Your task to perform on an android device: How do I get to the nearest Sprint Store? Image 0: 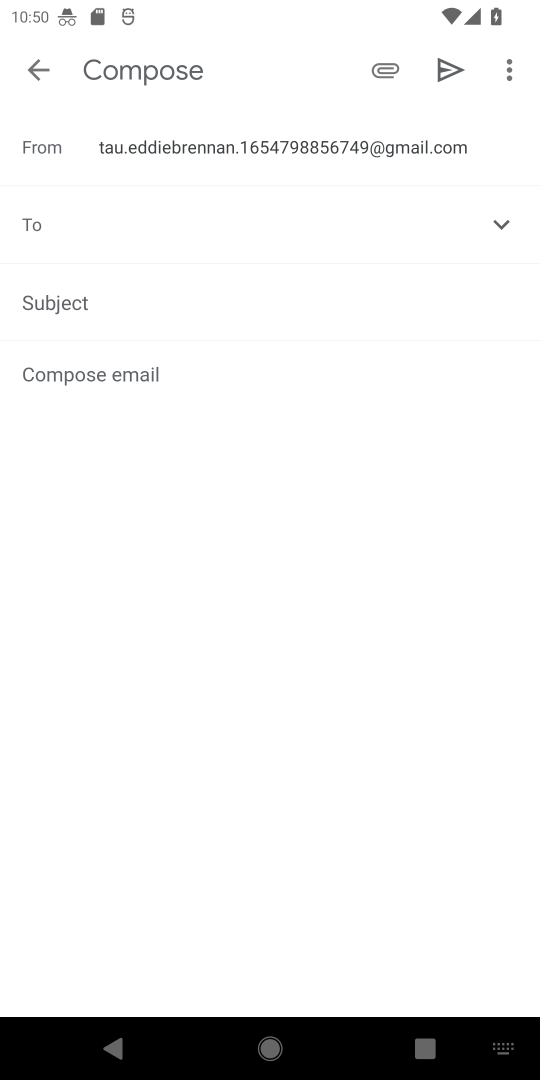
Step 0: press home button
Your task to perform on an android device: How do I get to the nearest Sprint Store? Image 1: 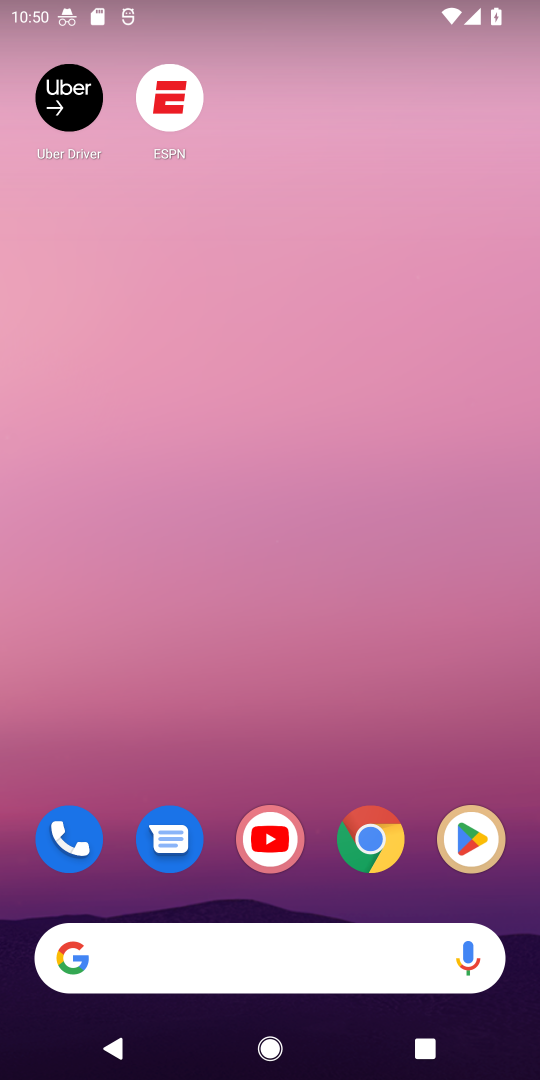
Step 1: drag from (311, 898) to (367, 66)
Your task to perform on an android device: How do I get to the nearest Sprint Store? Image 2: 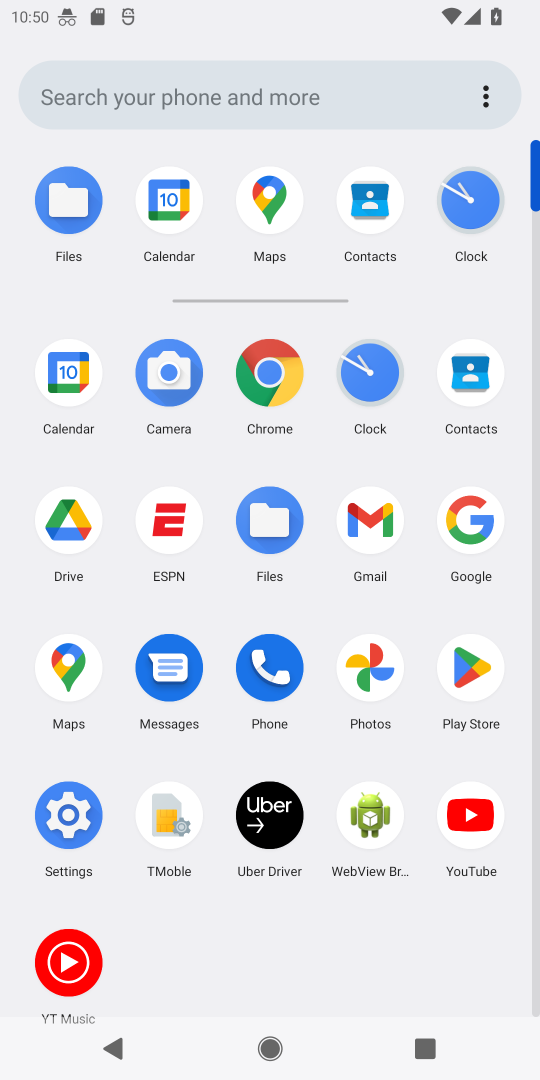
Step 2: click (290, 381)
Your task to perform on an android device: How do I get to the nearest Sprint Store? Image 3: 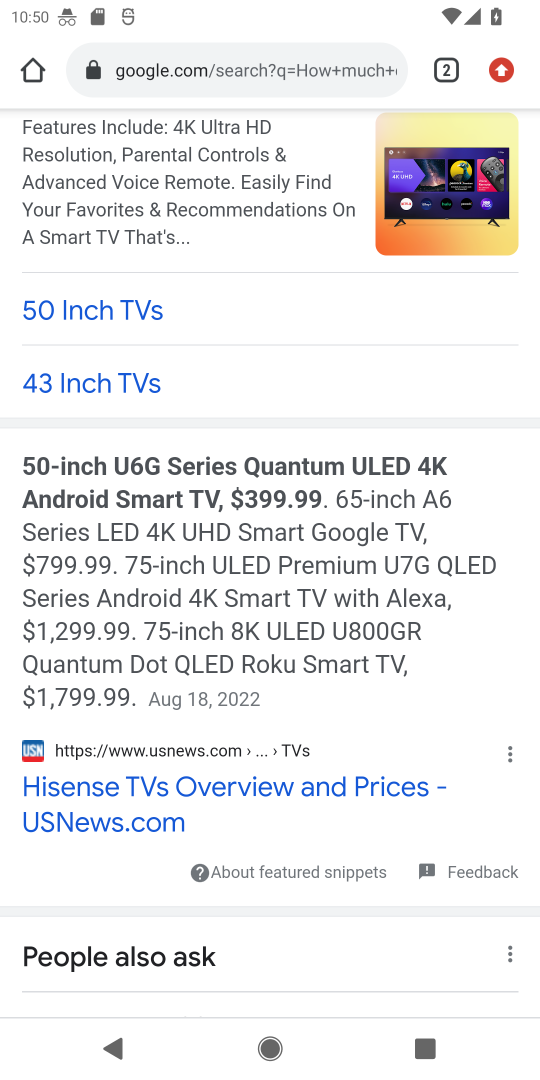
Step 3: click (276, 72)
Your task to perform on an android device: How do I get to the nearest Sprint Store? Image 4: 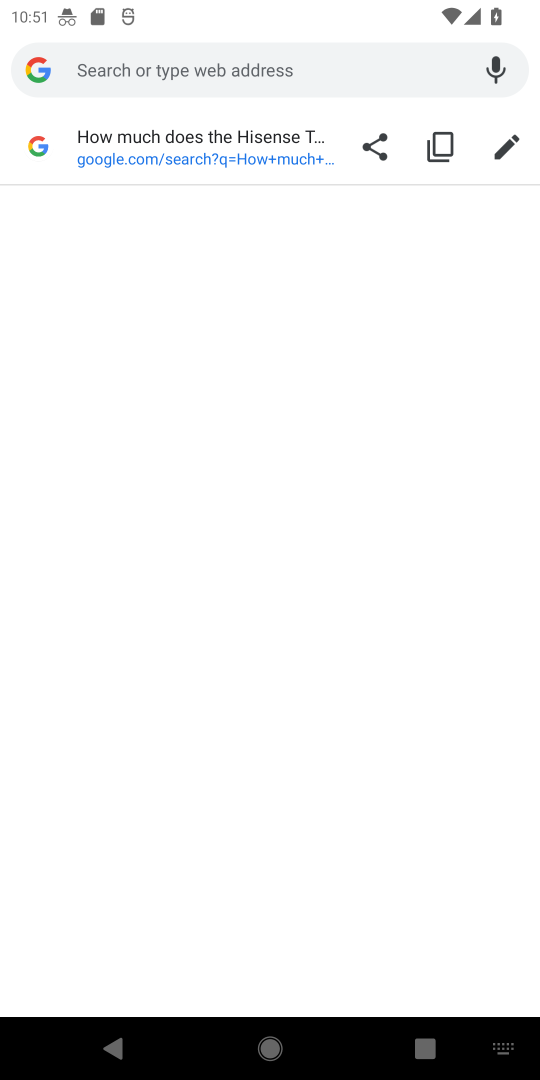
Step 4: type "How do I get to the nearest Sprint Store?"
Your task to perform on an android device: How do I get to the nearest Sprint Store? Image 5: 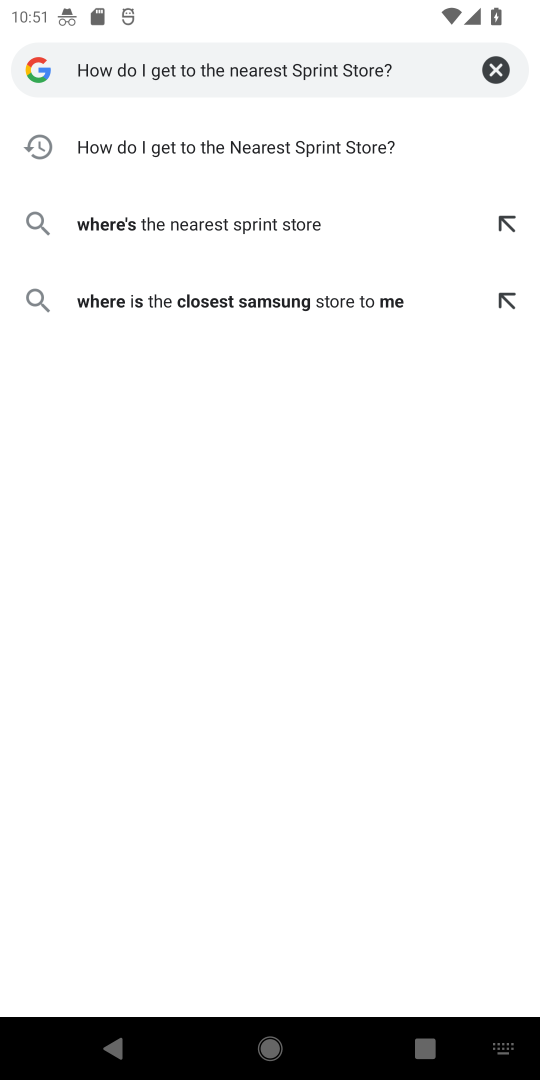
Step 5: press enter
Your task to perform on an android device: How do I get to the nearest Sprint Store? Image 6: 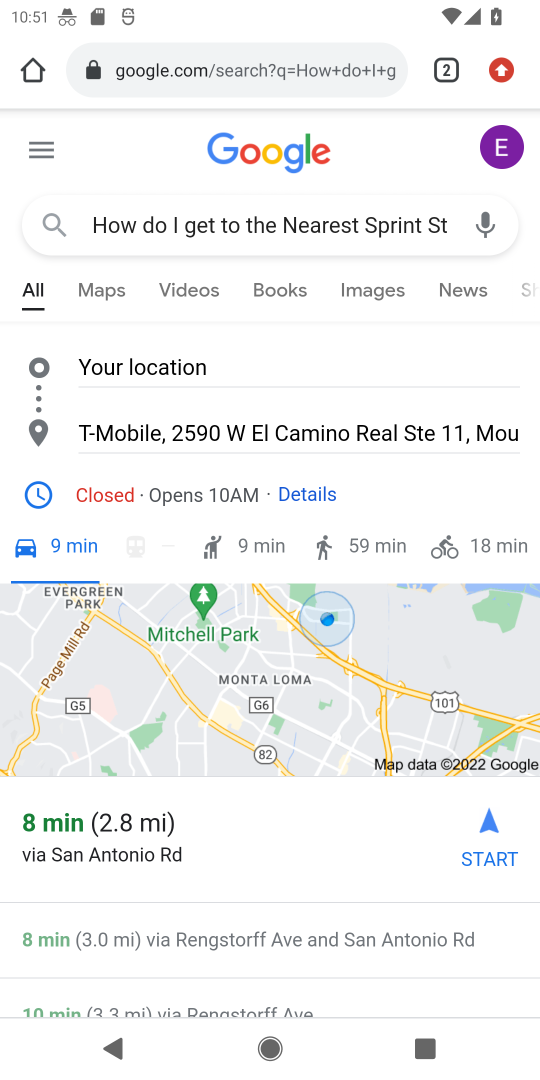
Step 6: task complete